Your task to perform on an android device: Go to Yahoo.com Image 0: 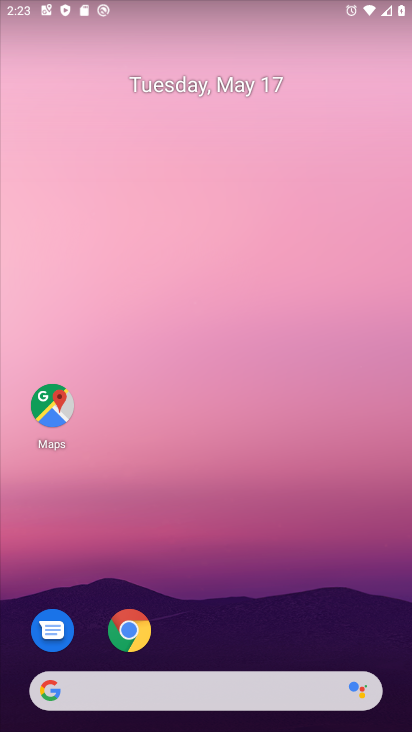
Step 0: drag from (315, 646) to (171, 209)
Your task to perform on an android device: Go to Yahoo.com Image 1: 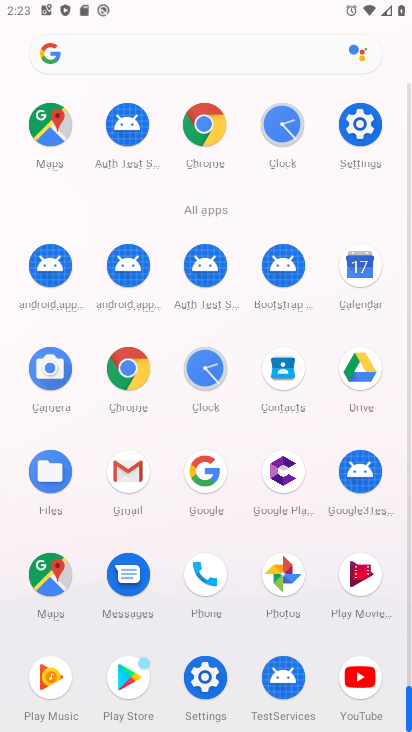
Step 1: click (200, 124)
Your task to perform on an android device: Go to Yahoo.com Image 2: 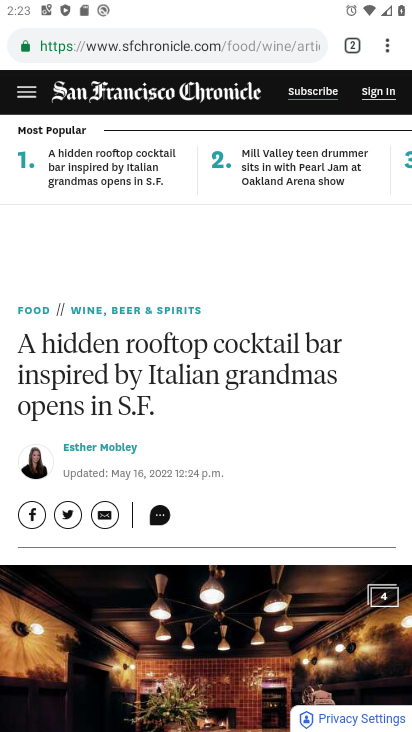
Step 2: drag from (388, 46) to (208, 88)
Your task to perform on an android device: Go to Yahoo.com Image 3: 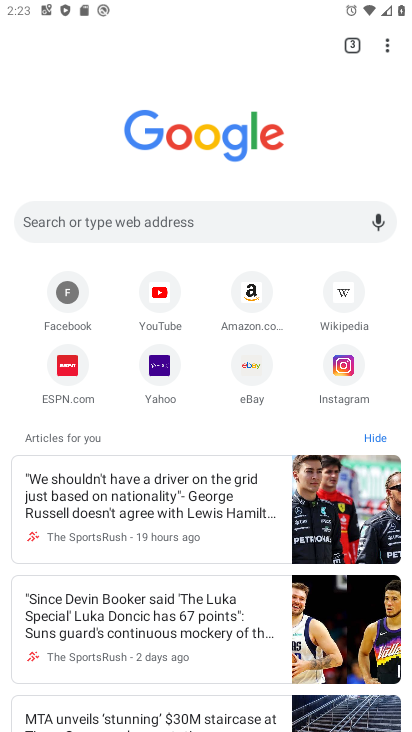
Step 3: click (160, 366)
Your task to perform on an android device: Go to Yahoo.com Image 4: 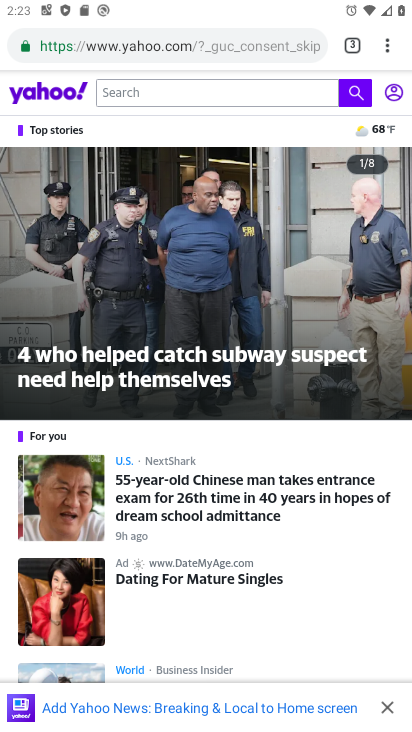
Step 4: task complete